Your task to perform on an android device: change keyboard looks Image 0: 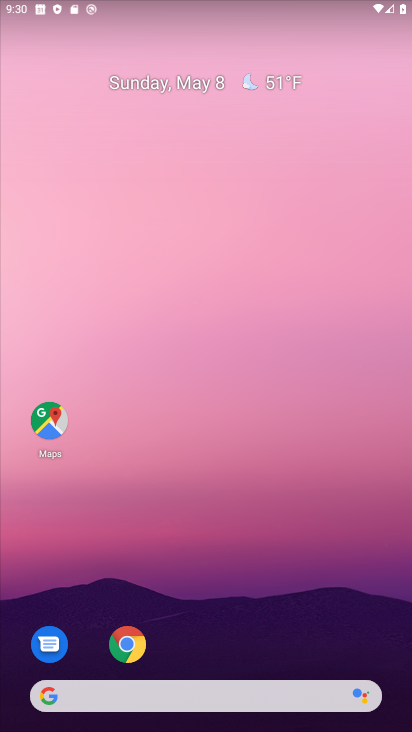
Step 0: drag from (255, 646) to (260, 312)
Your task to perform on an android device: change keyboard looks Image 1: 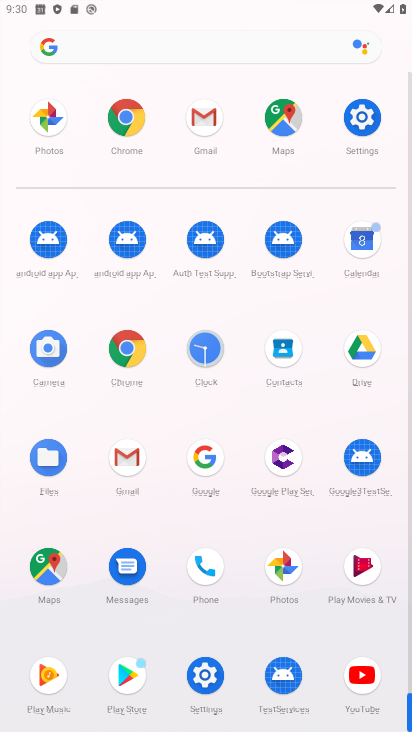
Step 1: click (360, 120)
Your task to perform on an android device: change keyboard looks Image 2: 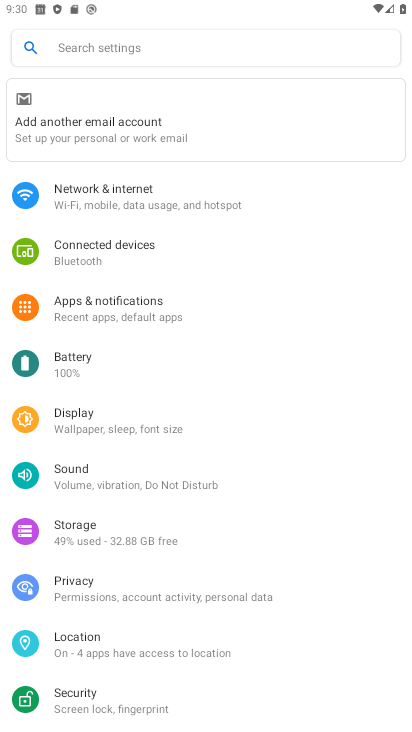
Step 2: drag from (225, 649) to (275, 159)
Your task to perform on an android device: change keyboard looks Image 3: 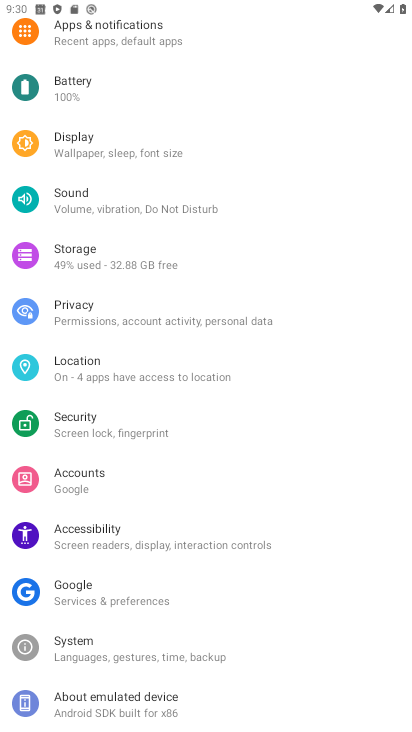
Step 3: click (90, 645)
Your task to perform on an android device: change keyboard looks Image 4: 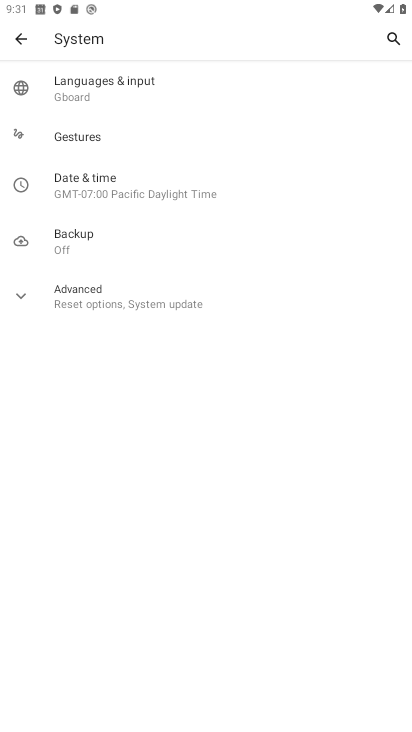
Step 4: click (122, 97)
Your task to perform on an android device: change keyboard looks Image 5: 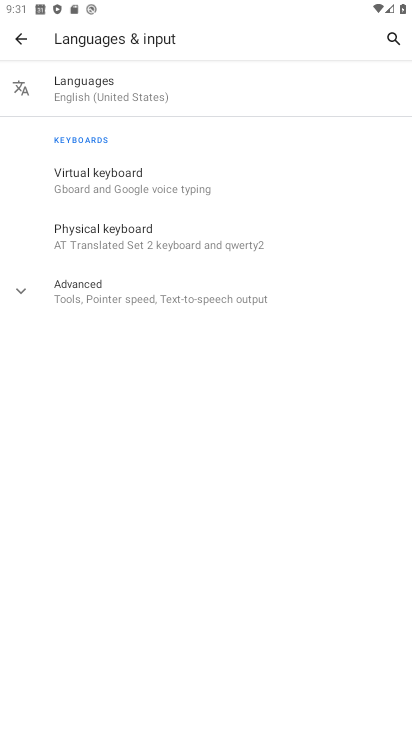
Step 5: click (98, 186)
Your task to perform on an android device: change keyboard looks Image 6: 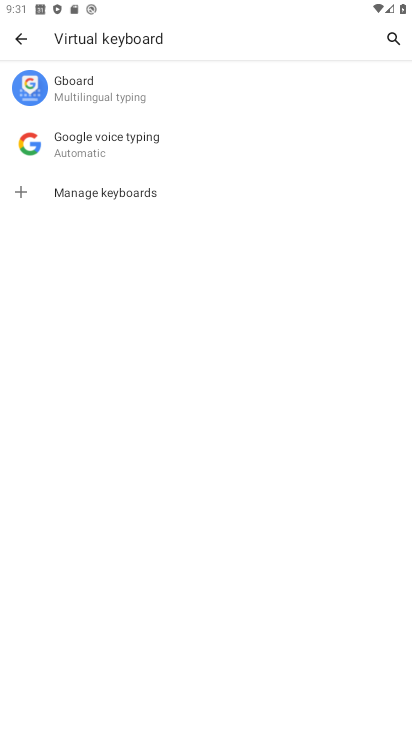
Step 6: click (164, 99)
Your task to perform on an android device: change keyboard looks Image 7: 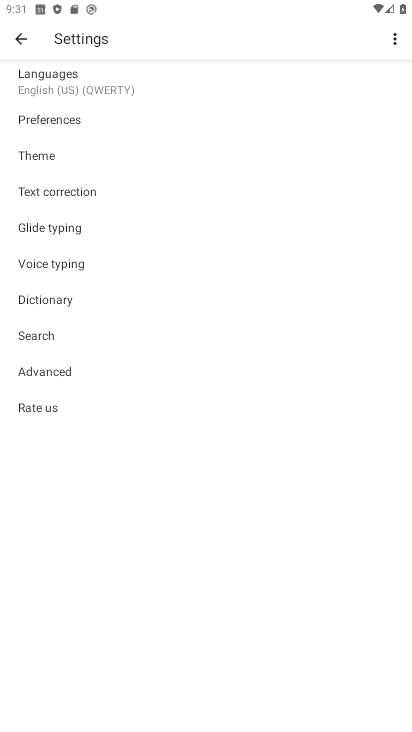
Step 7: click (48, 154)
Your task to perform on an android device: change keyboard looks Image 8: 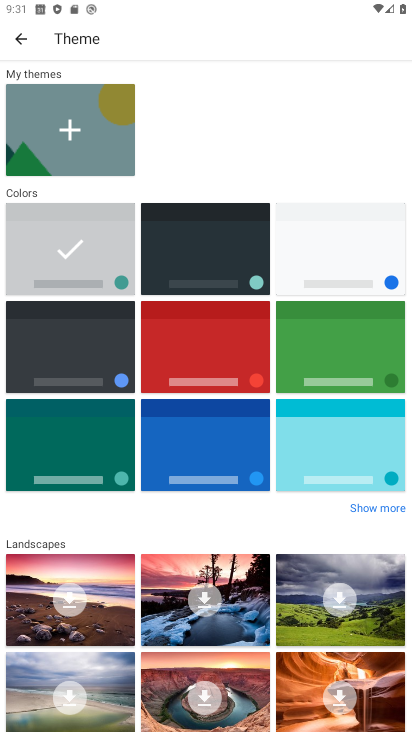
Step 8: click (101, 341)
Your task to perform on an android device: change keyboard looks Image 9: 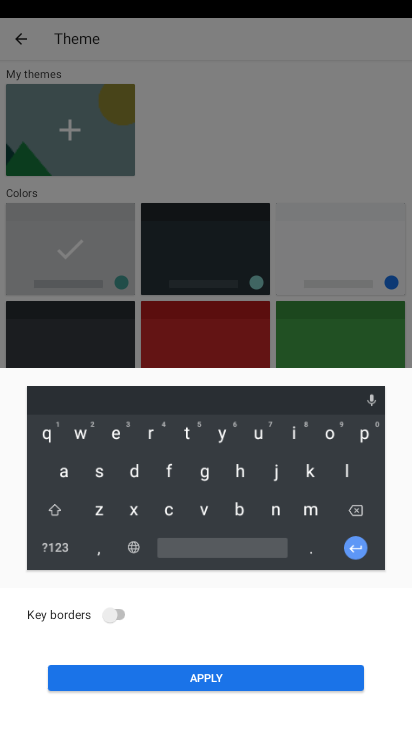
Step 9: click (193, 674)
Your task to perform on an android device: change keyboard looks Image 10: 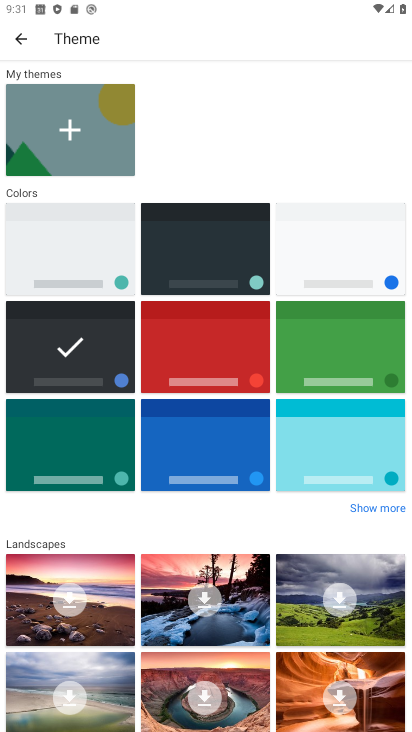
Step 10: task complete